Your task to perform on an android device: Show me recent news Image 0: 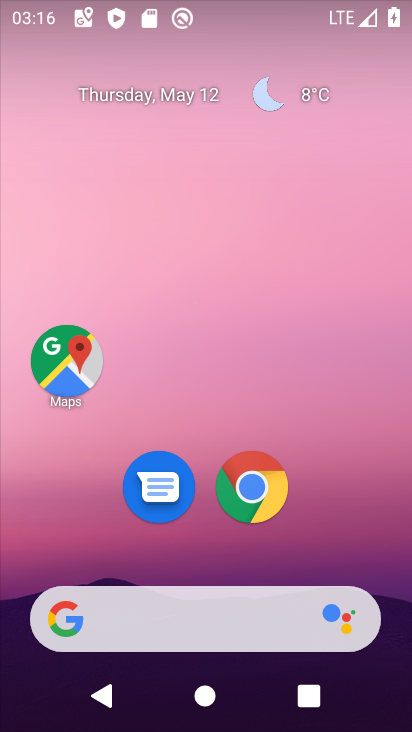
Step 0: drag from (334, 498) to (324, 113)
Your task to perform on an android device: Show me recent news Image 1: 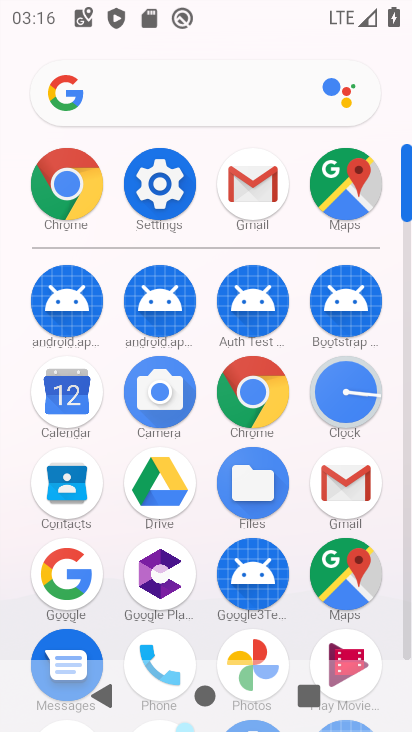
Step 1: click (243, 404)
Your task to perform on an android device: Show me recent news Image 2: 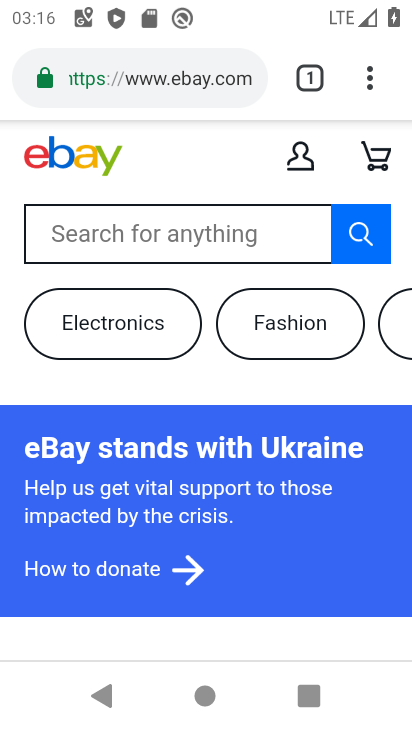
Step 2: click (218, 85)
Your task to perform on an android device: Show me recent news Image 3: 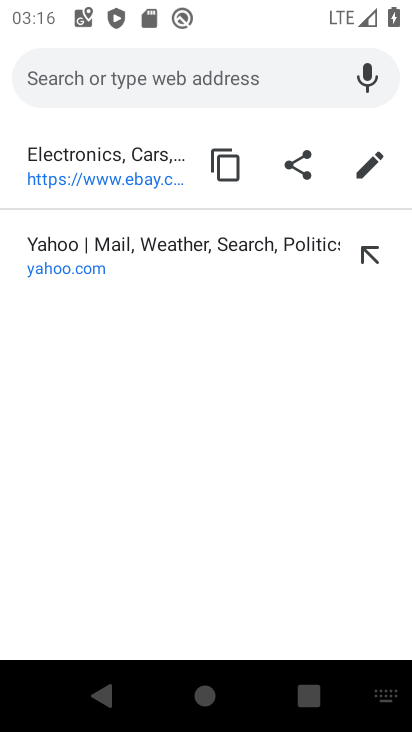
Step 3: type "news"
Your task to perform on an android device: Show me recent news Image 4: 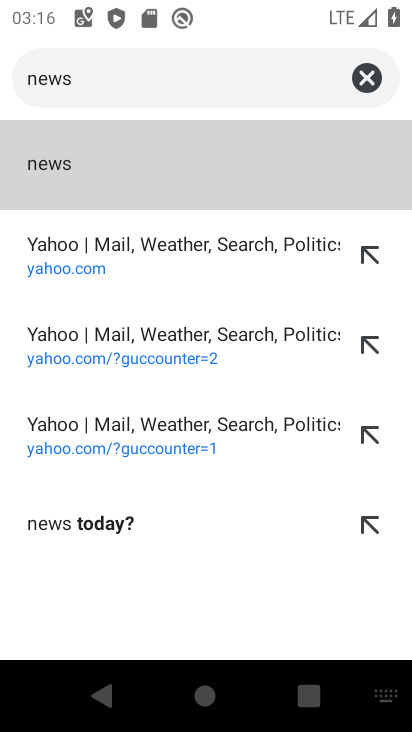
Step 4: click (49, 158)
Your task to perform on an android device: Show me recent news Image 5: 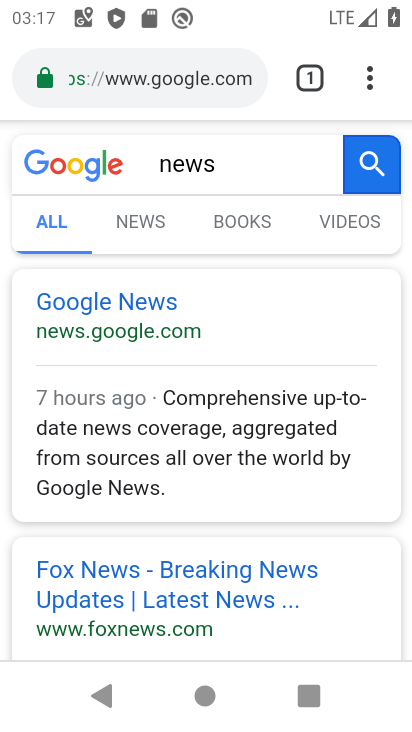
Step 5: click (135, 311)
Your task to perform on an android device: Show me recent news Image 6: 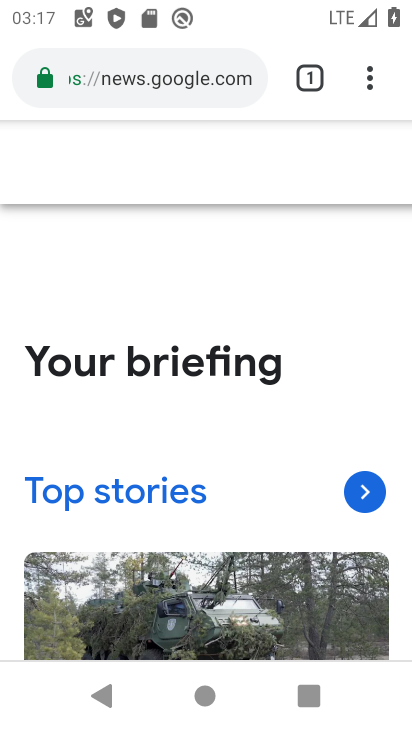
Step 6: task complete